Your task to perform on an android device: Search for seafood restaurants on Google Maps Image 0: 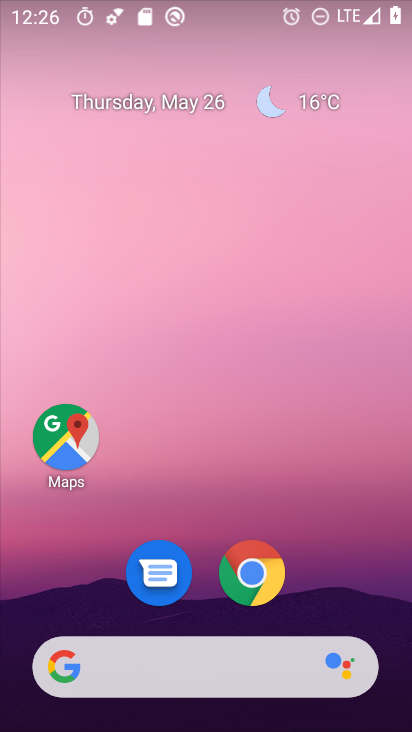
Step 0: click (61, 443)
Your task to perform on an android device: Search for seafood restaurants on Google Maps Image 1: 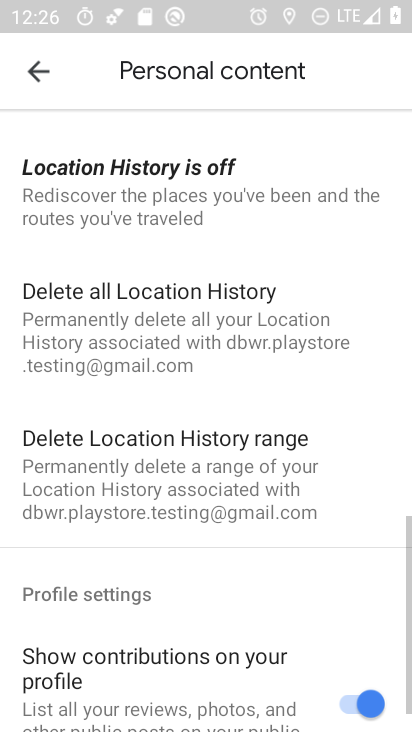
Step 1: click (32, 72)
Your task to perform on an android device: Search for seafood restaurants on Google Maps Image 2: 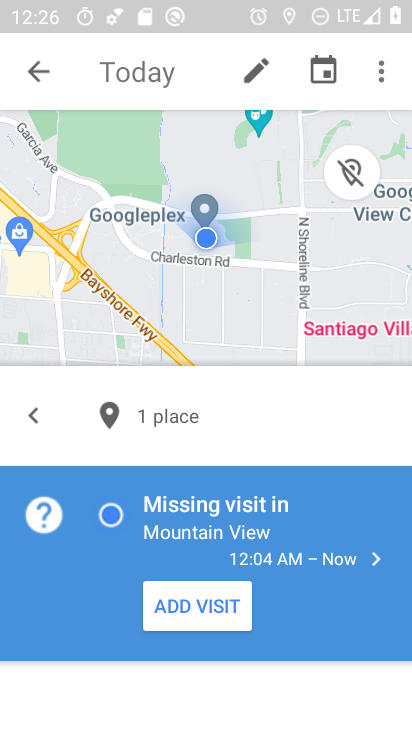
Step 2: click (44, 72)
Your task to perform on an android device: Search for seafood restaurants on Google Maps Image 3: 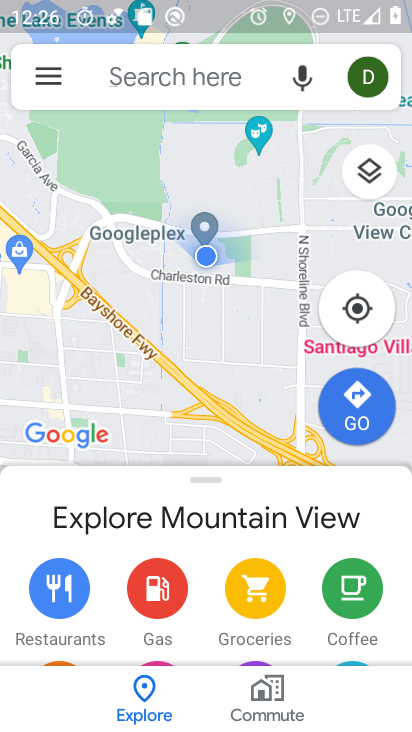
Step 3: click (114, 72)
Your task to perform on an android device: Search for seafood restaurants on Google Maps Image 4: 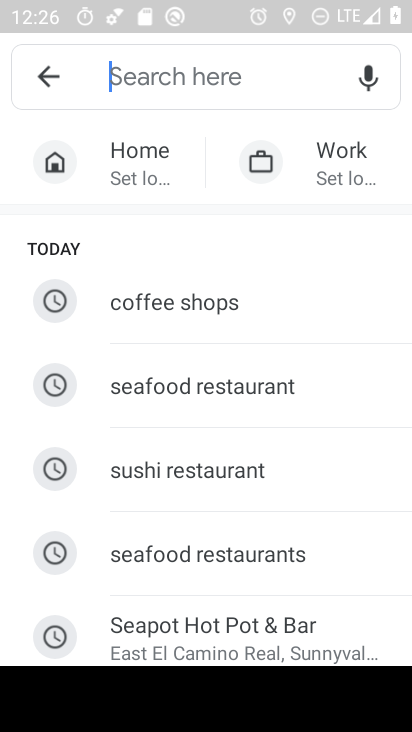
Step 4: type "seafood restaurants"
Your task to perform on an android device: Search for seafood restaurants on Google Maps Image 5: 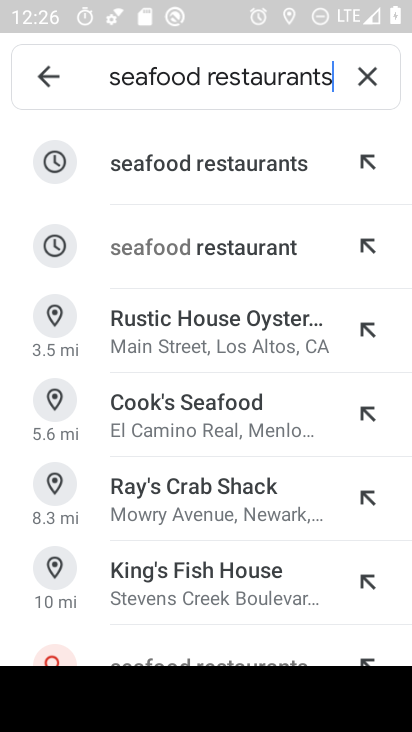
Step 5: click (168, 167)
Your task to perform on an android device: Search for seafood restaurants on Google Maps Image 6: 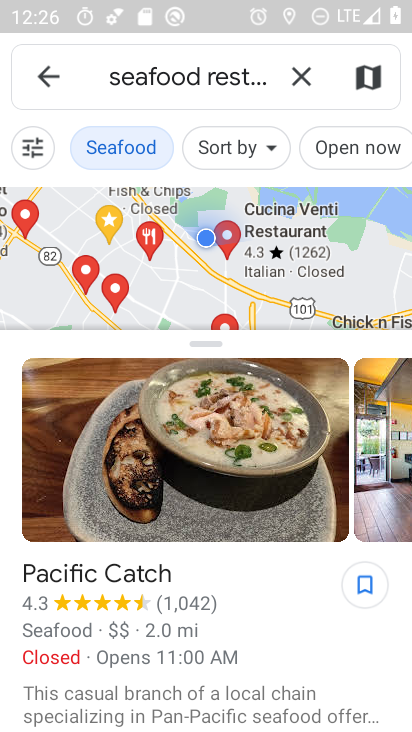
Step 6: task complete